Your task to perform on an android device: Is it going to rain today? Image 0: 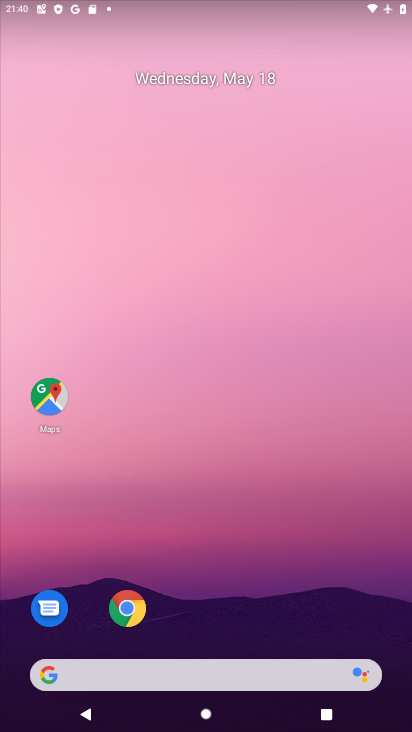
Step 0: drag from (253, 604) to (286, 131)
Your task to perform on an android device: Is it going to rain today? Image 1: 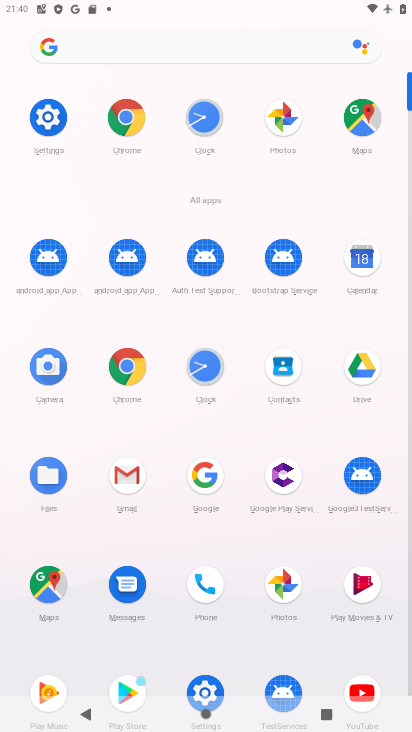
Step 1: click (199, 53)
Your task to perform on an android device: Is it going to rain today? Image 2: 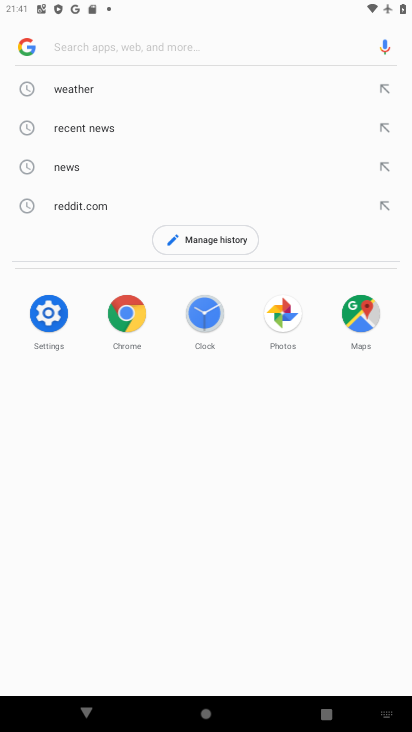
Step 2: click (147, 91)
Your task to perform on an android device: Is it going to rain today? Image 3: 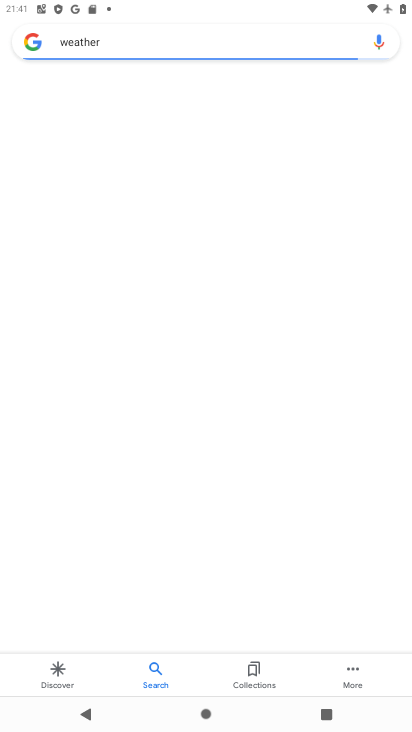
Step 3: task complete